Your task to perform on an android device: Show me popular games on the Play Store Image 0: 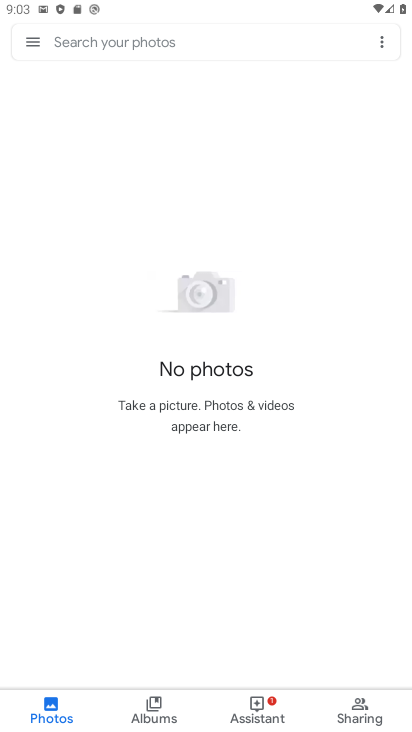
Step 0: press home button
Your task to perform on an android device: Show me popular games on the Play Store Image 1: 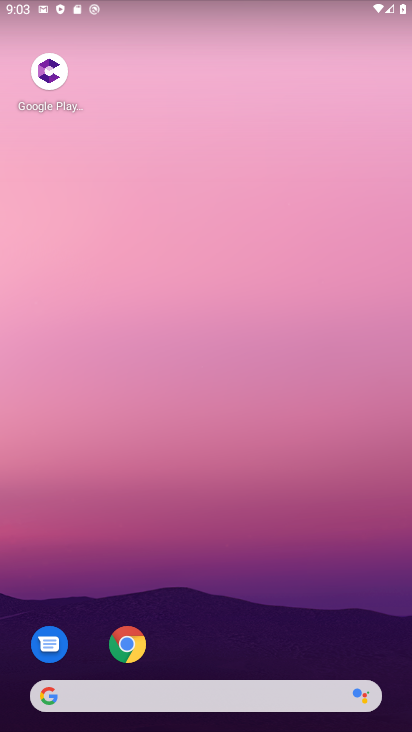
Step 1: drag from (209, 684) to (185, 21)
Your task to perform on an android device: Show me popular games on the Play Store Image 2: 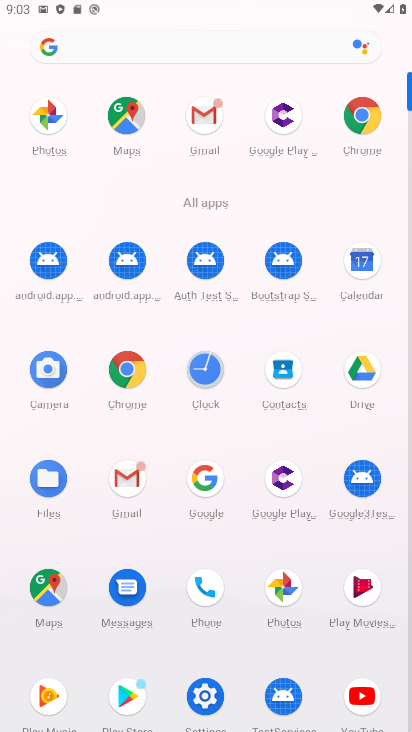
Step 2: click (132, 680)
Your task to perform on an android device: Show me popular games on the Play Store Image 3: 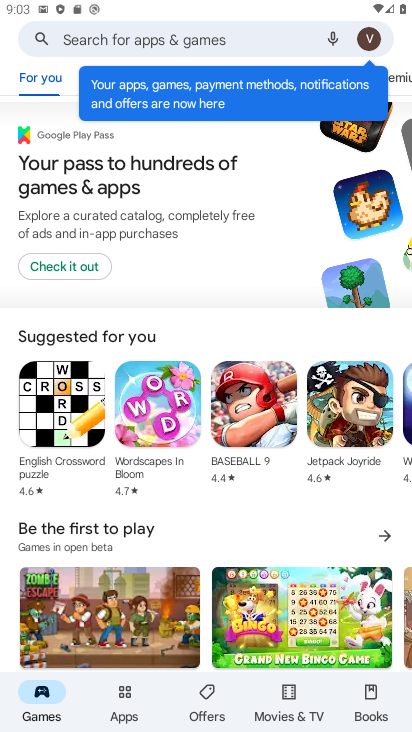
Step 3: drag from (190, 550) to (173, 178)
Your task to perform on an android device: Show me popular games on the Play Store Image 4: 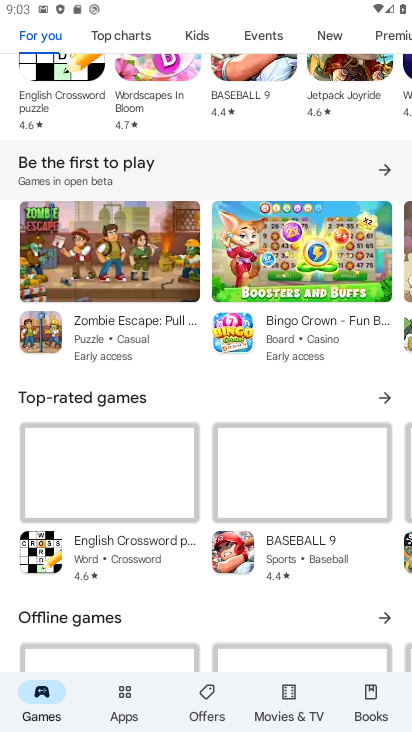
Step 4: drag from (164, 560) to (175, 410)
Your task to perform on an android device: Show me popular games on the Play Store Image 5: 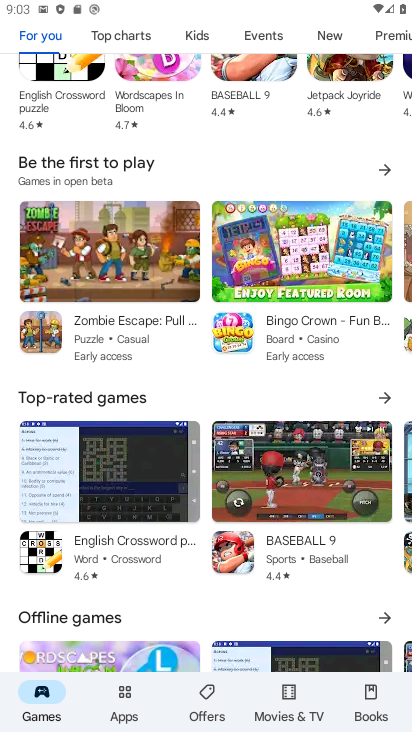
Step 5: click (369, 398)
Your task to perform on an android device: Show me popular games on the Play Store Image 6: 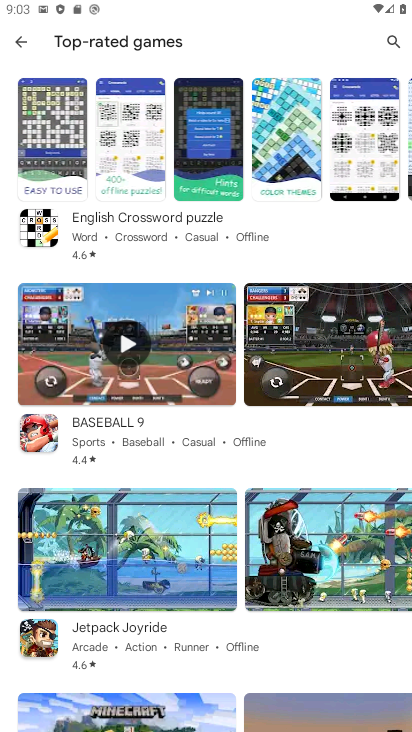
Step 6: task complete